Your task to perform on an android device: toggle priority inbox in the gmail app Image 0: 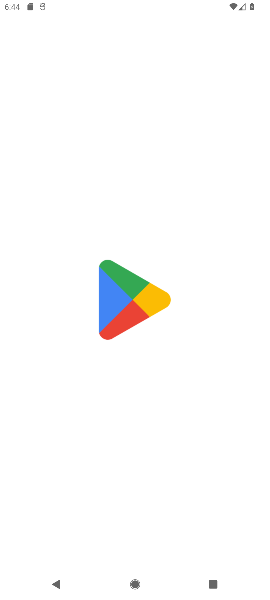
Step 0: press home button
Your task to perform on an android device: toggle priority inbox in the gmail app Image 1: 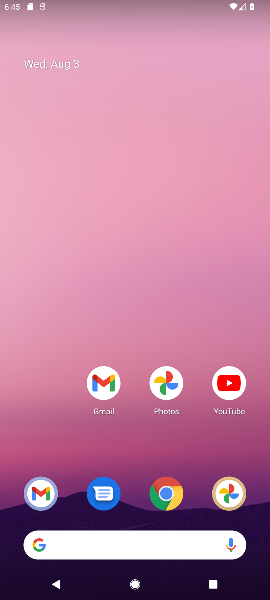
Step 1: drag from (136, 517) to (142, 151)
Your task to perform on an android device: toggle priority inbox in the gmail app Image 2: 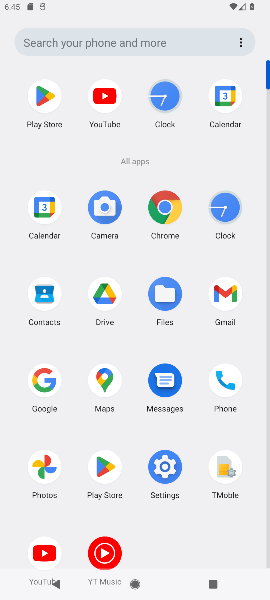
Step 2: click (212, 293)
Your task to perform on an android device: toggle priority inbox in the gmail app Image 3: 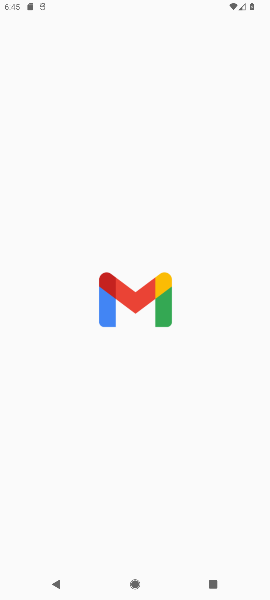
Step 3: click (173, 429)
Your task to perform on an android device: toggle priority inbox in the gmail app Image 4: 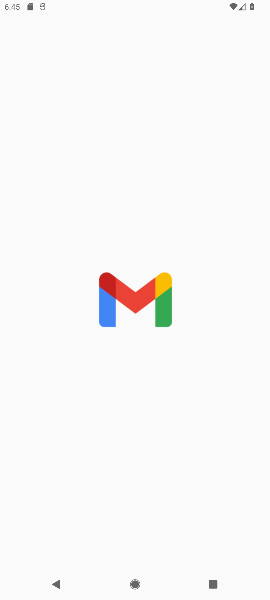
Step 4: click (173, 429)
Your task to perform on an android device: toggle priority inbox in the gmail app Image 5: 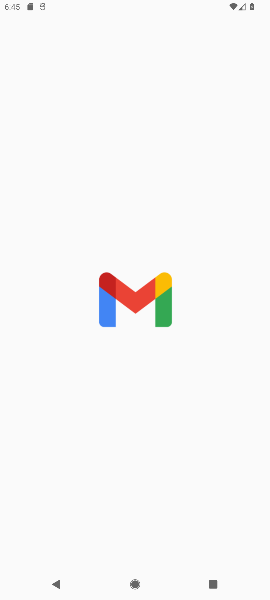
Step 5: click (173, 429)
Your task to perform on an android device: toggle priority inbox in the gmail app Image 6: 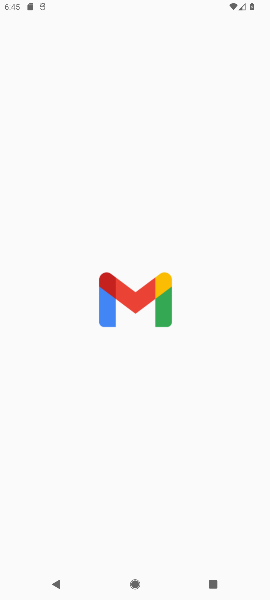
Step 6: click (173, 429)
Your task to perform on an android device: toggle priority inbox in the gmail app Image 7: 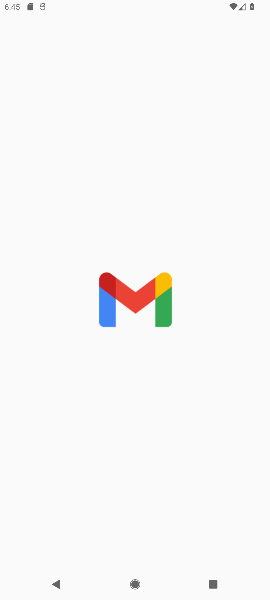
Step 7: click (132, 429)
Your task to perform on an android device: toggle priority inbox in the gmail app Image 8: 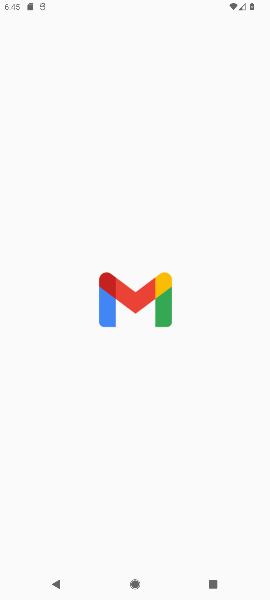
Step 8: click (132, 429)
Your task to perform on an android device: toggle priority inbox in the gmail app Image 9: 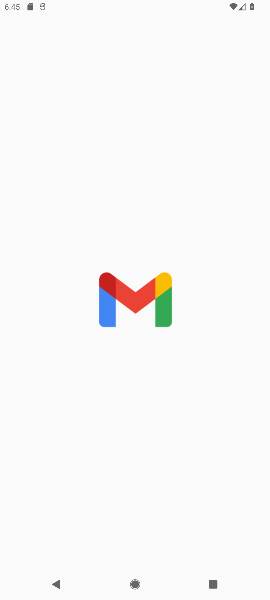
Step 9: task complete